Your task to perform on an android device: open chrome and create a bookmark for the current page Image 0: 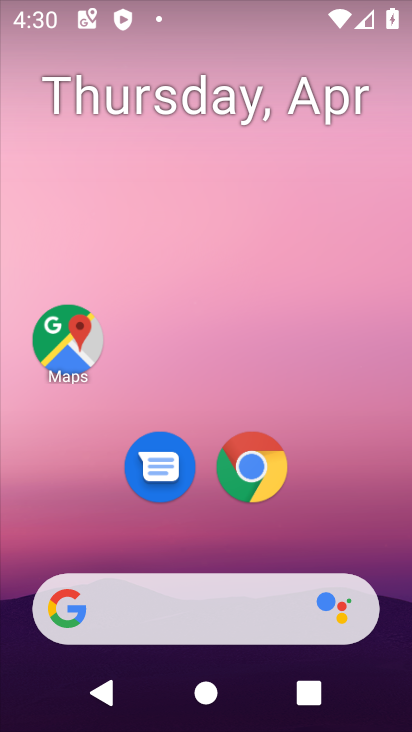
Step 0: click (267, 442)
Your task to perform on an android device: open chrome and create a bookmark for the current page Image 1: 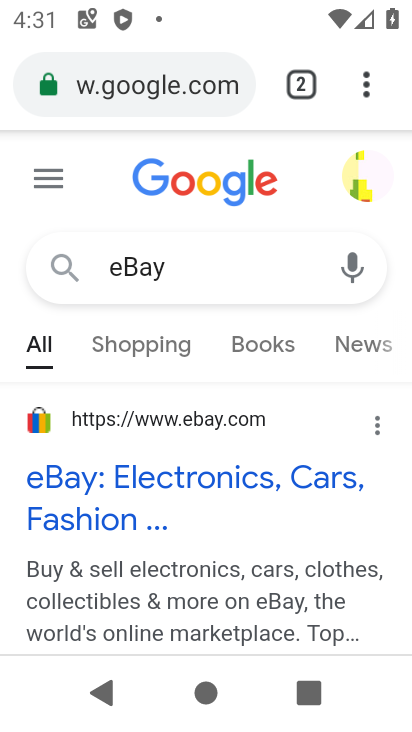
Step 1: click (163, 85)
Your task to perform on an android device: open chrome and create a bookmark for the current page Image 2: 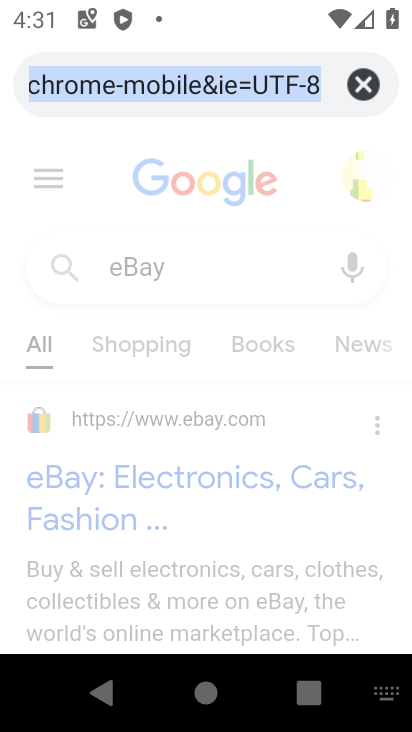
Step 2: type "foster"
Your task to perform on an android device: open chrome and create a bookmark for the current page Image 3: 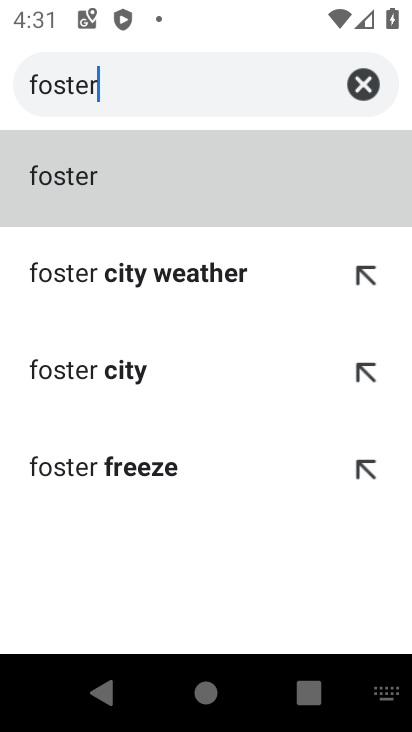
Step 3: click (154, 189)
Your task to perform on an android device: open chrome and create a bookmark for the current page Image 4: 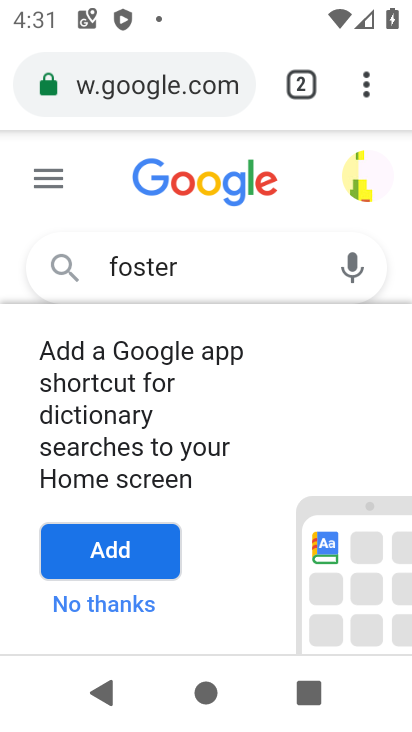
Step 4: click (367, 94)
Your task to perform on an android device: open chrome and create a bookmark for the current page Image 5: 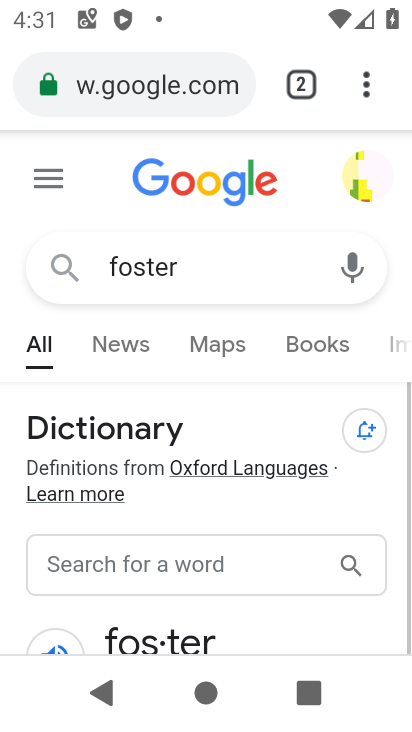
Step 5: click (366, 100)
Your task to perform on an android device: open chrome and create a bookmark for the current page Image 6: 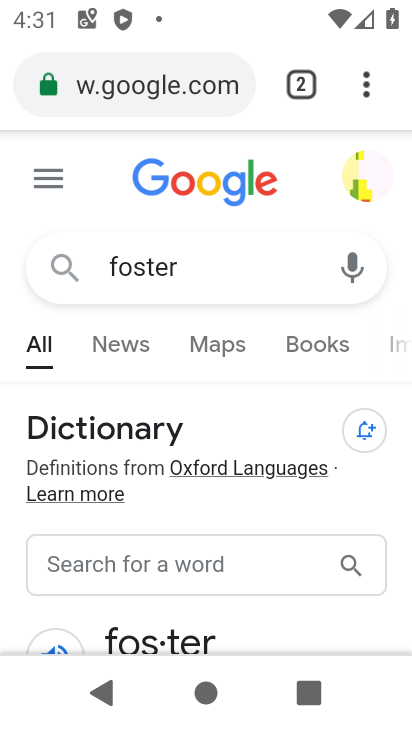
Step 6: click (368, 98)
Your task to perform on an android device: open chrome and create a bookmark for the current page Image 7: 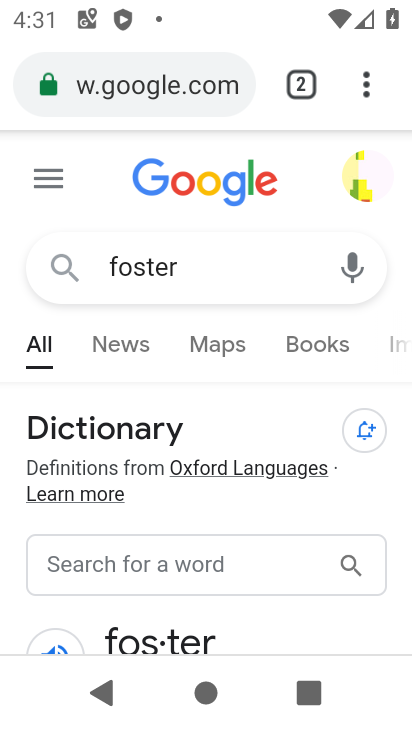
Step 7: click (366, 101)
Your task to perform on an android device: open chrome and create a bookmark for the current page Image 8: 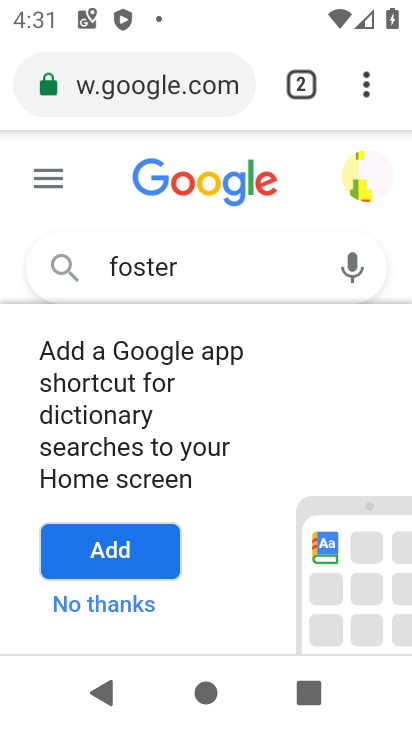
Step 8: click (370, 112)
Your task to perform on an android device: open chrome and create a bookmark for the current page Image 9: 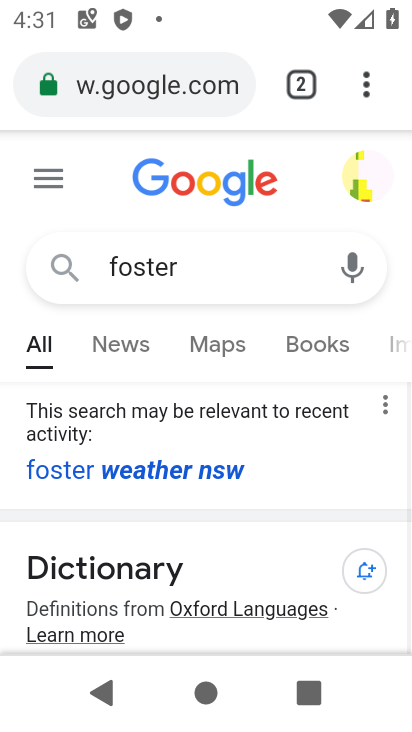
Step 9: click (359, 99)
Your task to perform on an android device: open chrome and create a bookmark for the current page Image 10: 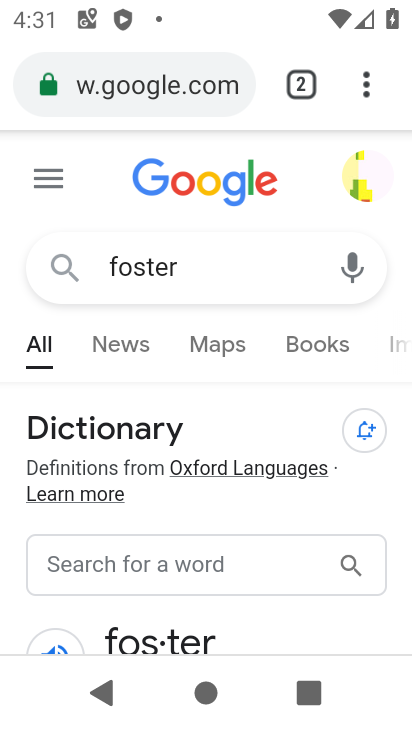
Step 10: click (372, 101)
Your task to perform on an android device: open chrome and create a bookmark for the current page Image 11: 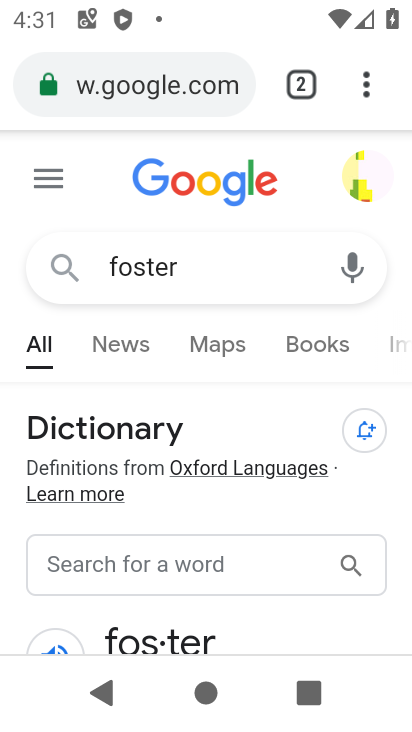
Step 11: click (360, 100)
Your task to perform on an android device: open chrome and create a bookmark for the current page Image 12: 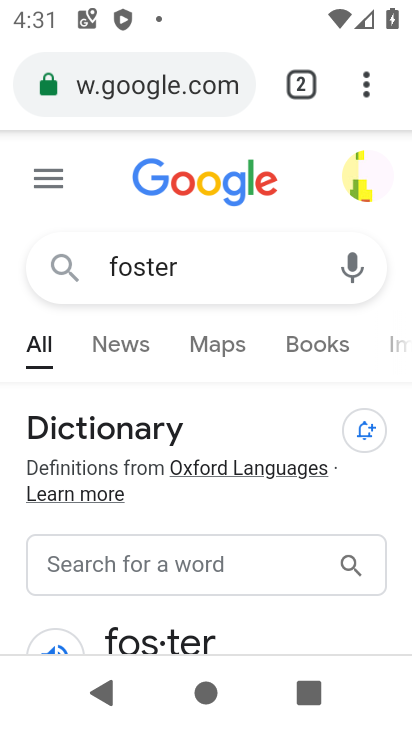
Step 12: click (347, 101)
Your task to perform on an android device: open chrome and create a bookmark for the current page Image 13: 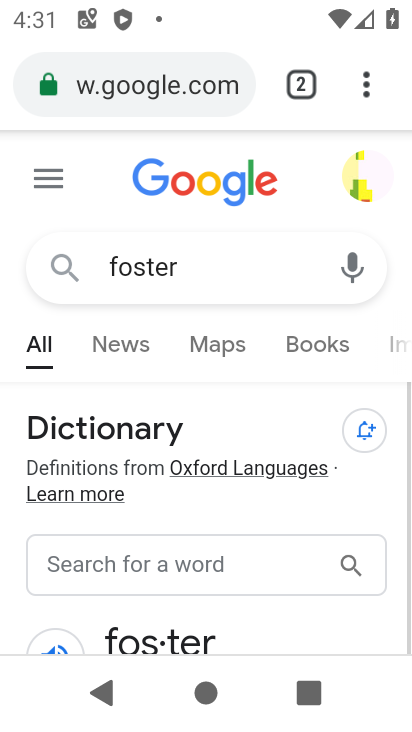
Step 13: click (361, 102)
Your task to perform on an android device: open chrome and create a bookmark for the current page Image 14: 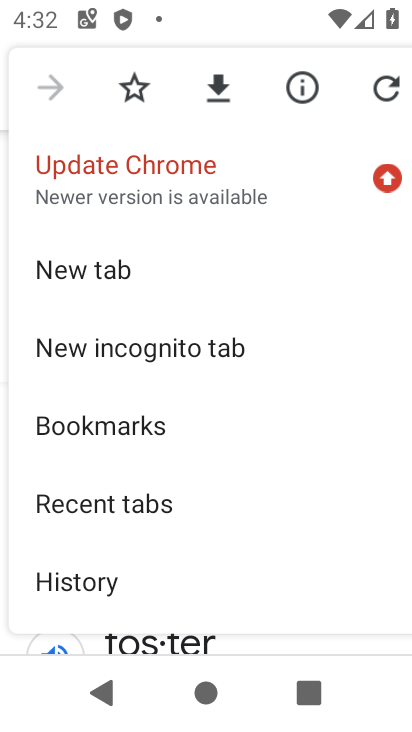
Step 14: click (133, 89)
Your task to perform on an android device: open chrome and create a bookmark for the current page Image 15: 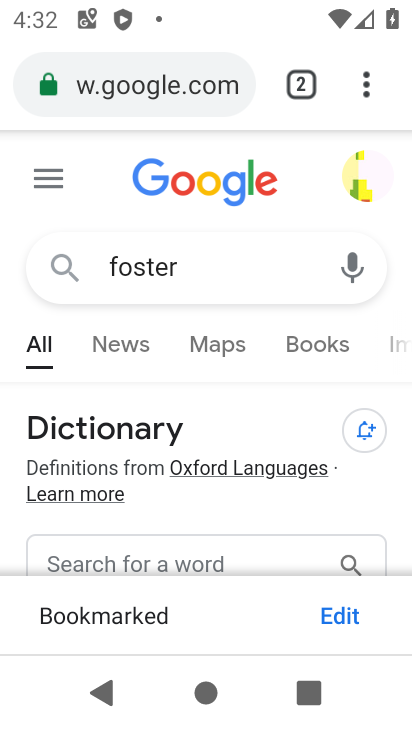
Step 15: task complete